Your task to perform on an android device: check storage Image 0: 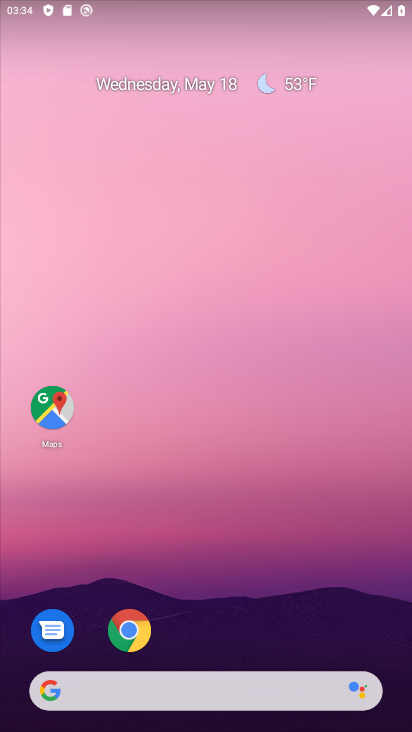
Step 0: drag from (215, 727) to (215, 118)
Your task to perform on an android device: check storage Image 1: 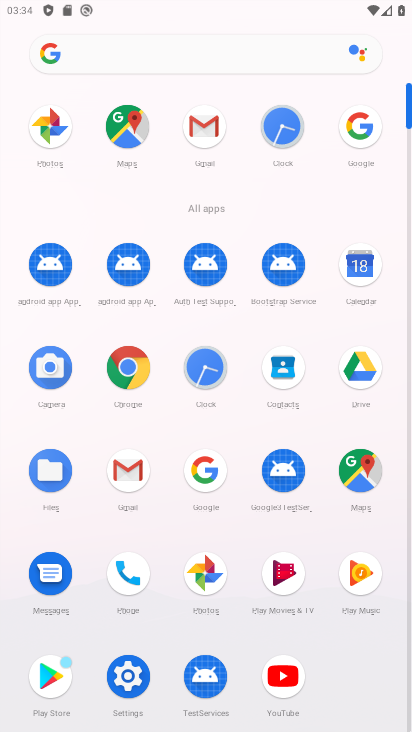
Step 1: click (128, 675)
Your task to perform on an android device: check storage Image 2: 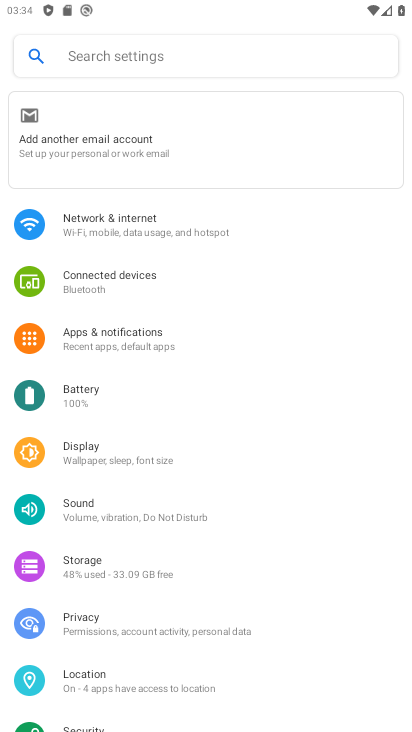
Step 2: click (87, 565)
Your task to perform on an android device: check storage Image 3: 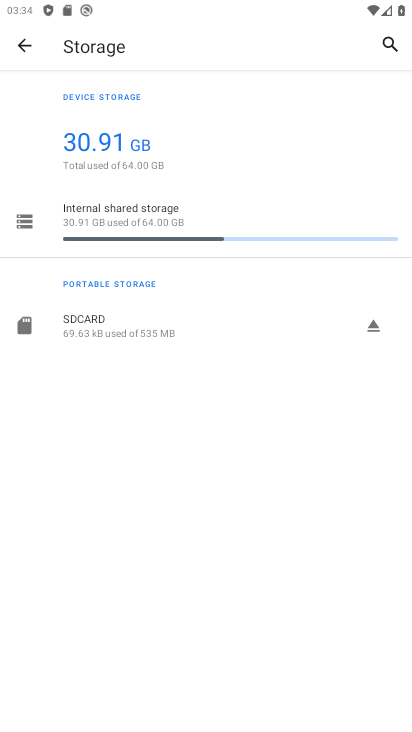
Step 3: task complete